Your task to perform on an android device: Open the web browser Image 0: 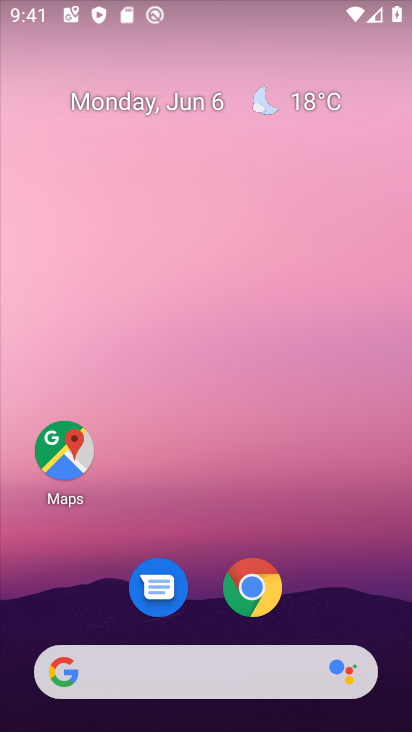
Step 0: click (250, 587)
Your task to perform on an android device: Open the web browser Image 1: 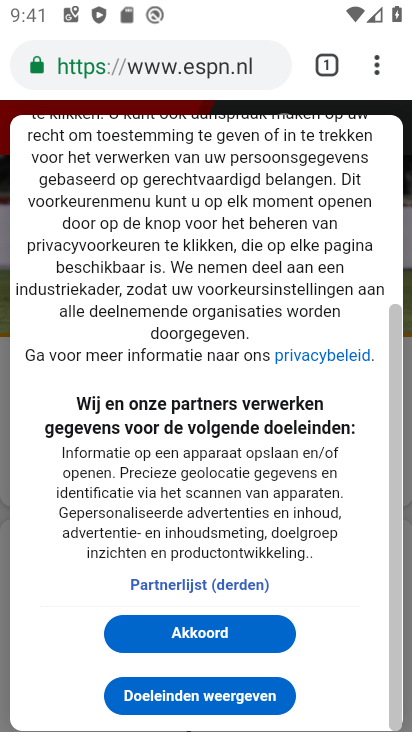
Step 1: task complete